Your task to perform on an android device: check battery use Image 0: 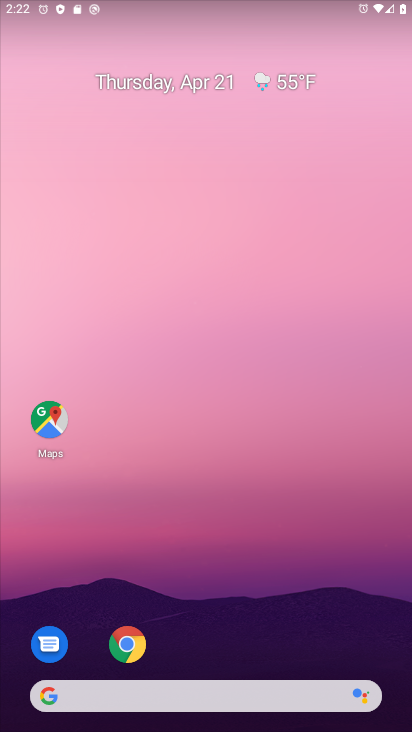
Step 0: drag from (341, 559) to (324, 269)
Your task to perform on an android device: check battery use Image 1: 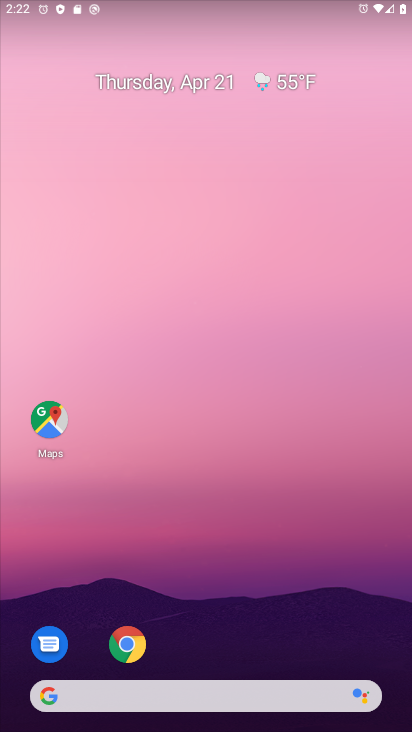
Step 1: drag from (283, 9) to (298, 618)
Your task to perform on an android device: check battery use Image 2: 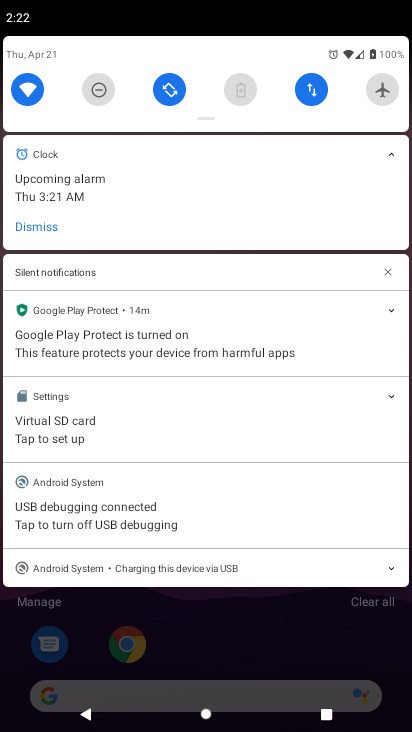
Step 2: drag from (208, 116) to (257, 522)
Your task to perform on an android device: check battery use Image 3: 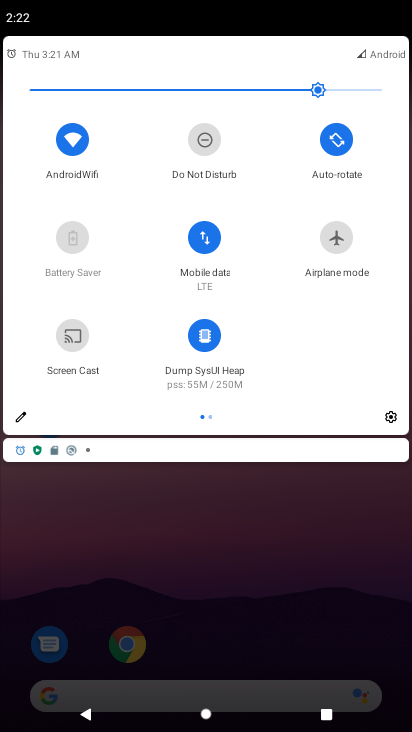
Step 3: click (15, 421)
Your task to perform on an android device: check battery use Image 4: 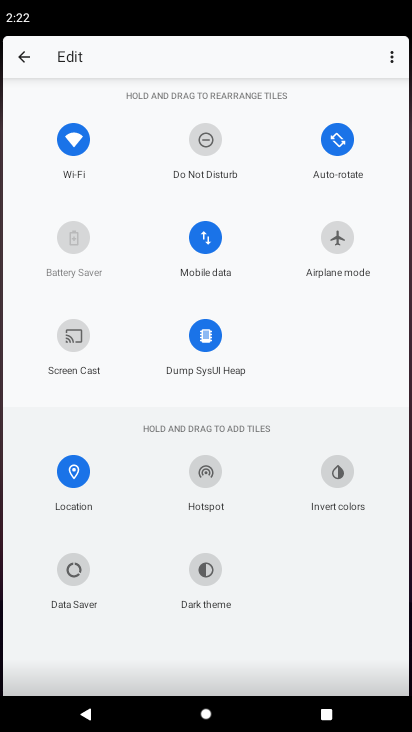
Step 4: task complete